Your task to perform on an android device: add a contact Image 0: 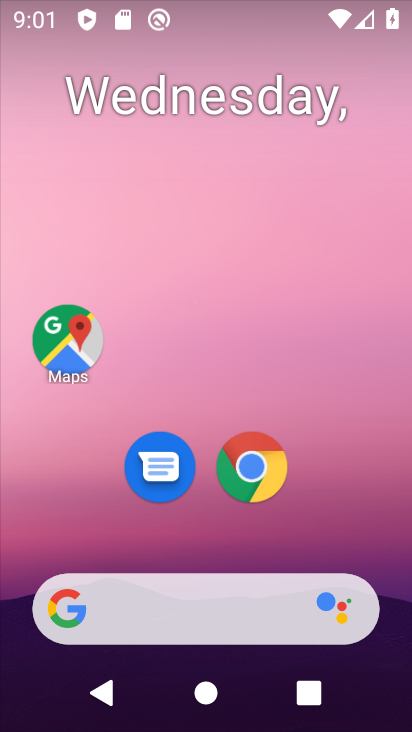
Step 0: drag from (393, 534) to (361, 117)
Your task to perform on an android device: add a contact Image 1: 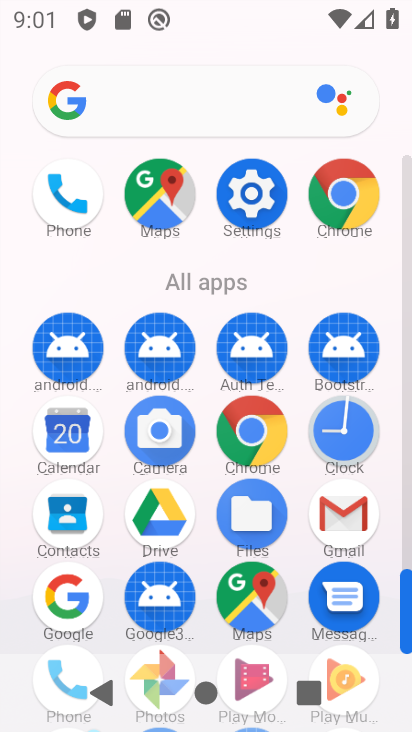
Step 1: click (88, 522)
Your task to perform on an android device: add a contact Image 2: 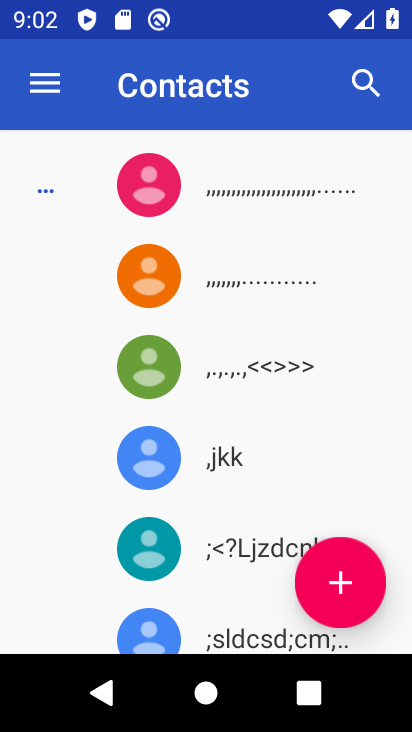
Step 2: click (350, 603)
Your task to perform on an android device: add a contact Image 3: 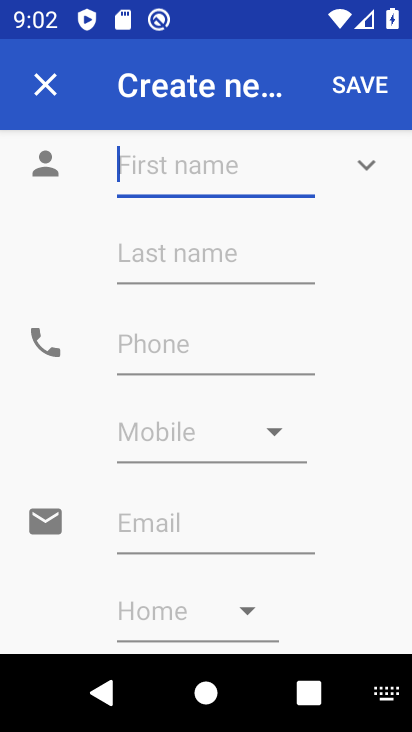
Step 3: type "jfjh"
Your task to perform on an android device: add a contact Image 4: 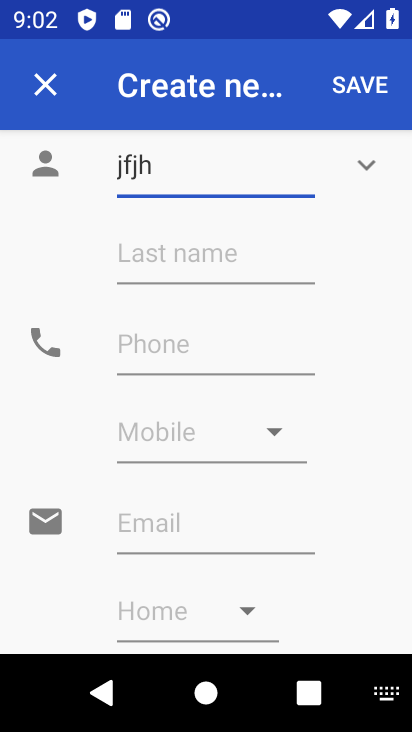
Step 4: click (360, 80)
Your task to perform on an android device: add a contact Image 5: 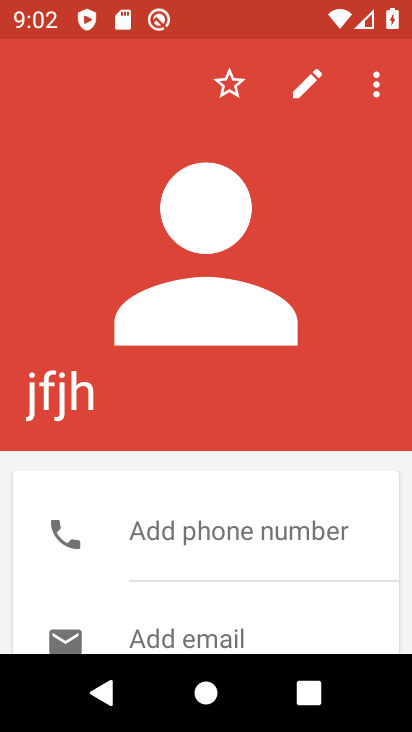
Step 5: task complete